Your task to perform on an android device: read, delete, or share a saved page in the chrome app Image 0: 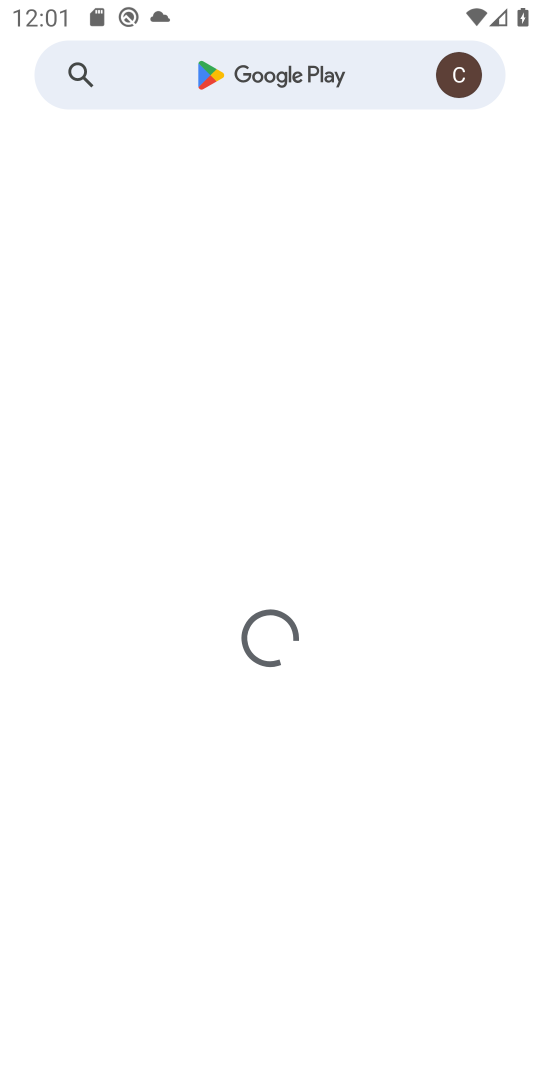
Step 0: press home button
Your task to perform on an android device: read, delete, or share a saved page in the chrome app Image 1: 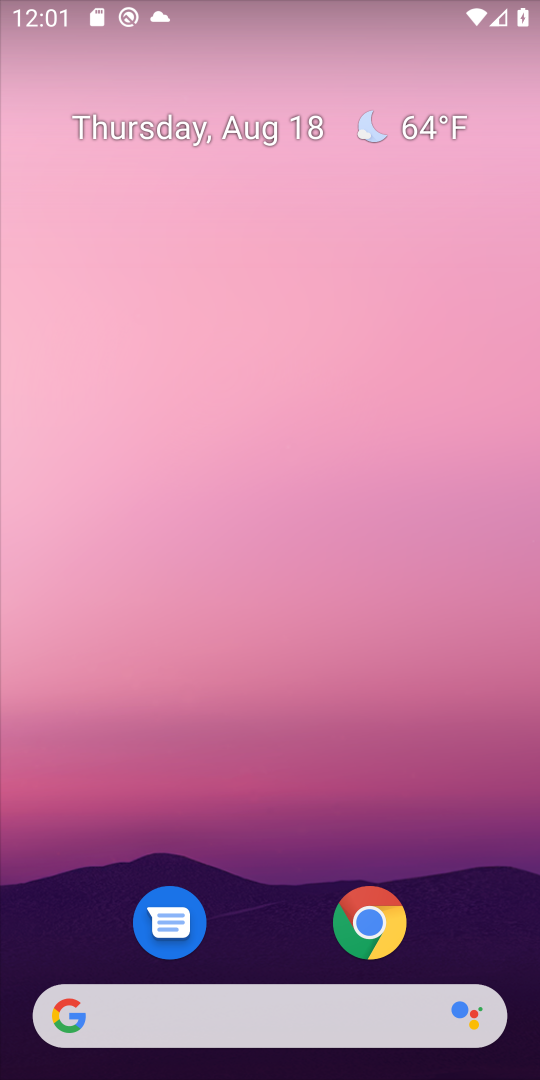
Step 1: click (378, 915)
Your task to perform on an android device: read, delete, or share a saved page in the chrome app Image 2: 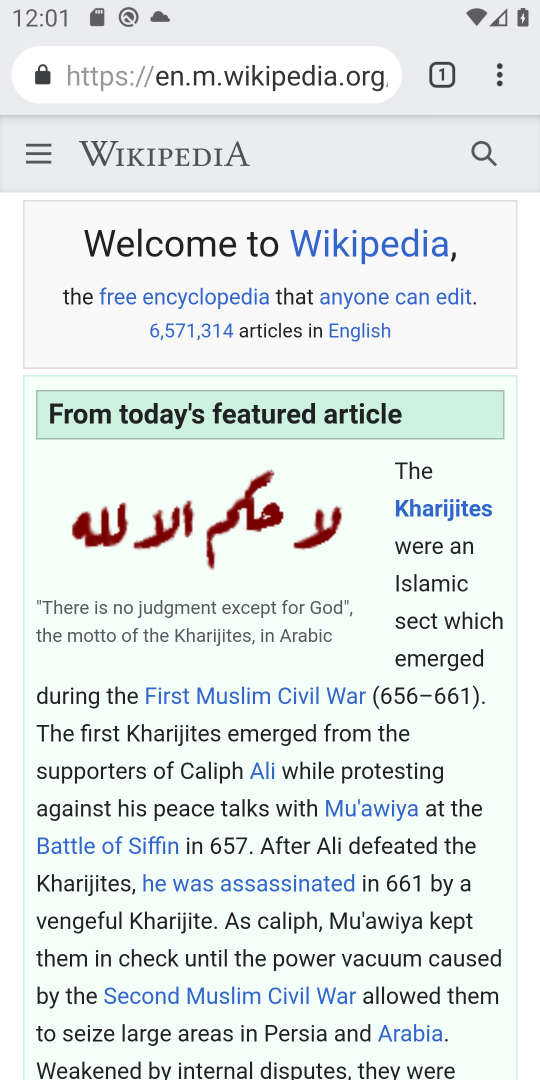
Step 2: click (496, 65)
Your task to perform on an android device: read, delete, or share a saved page in the chrome app Image 3: 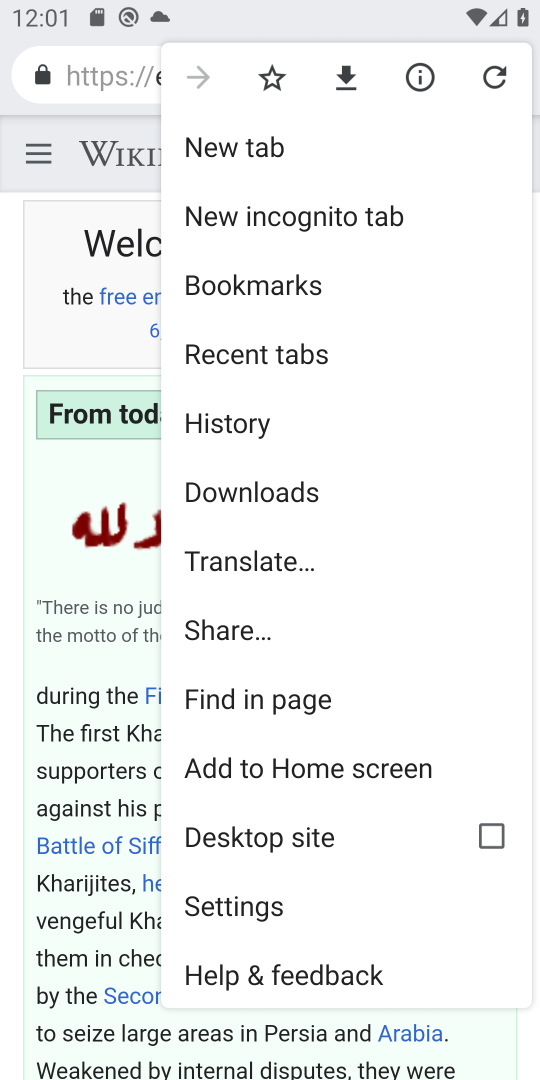
Step 3: click (224, 487)
Your task to perform on an android device: read, delete, or share a saved page in the chrome app Image 4: 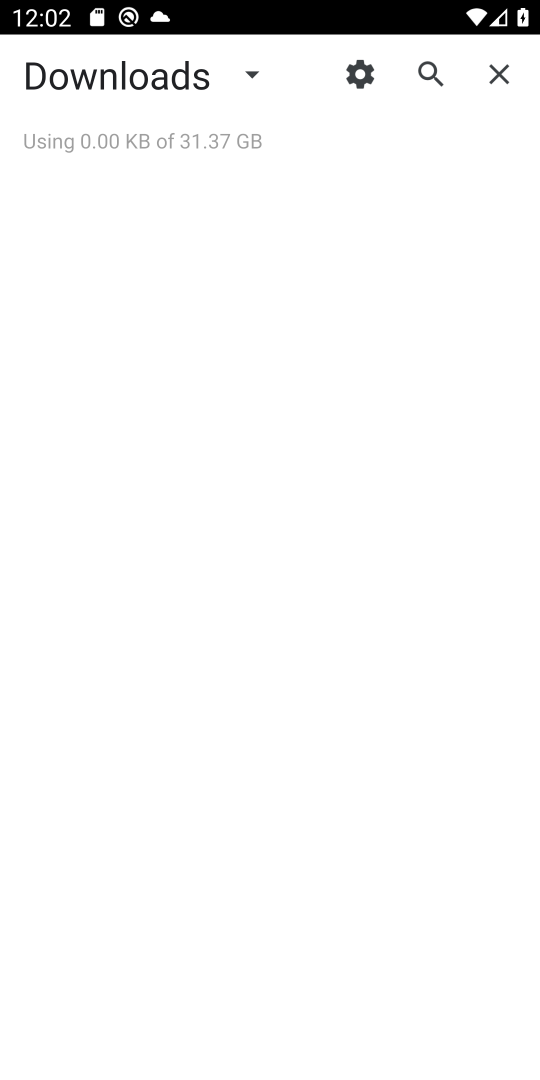
Step 4: task complete